Your task to perform on an android device: Open Android settings Image 0: 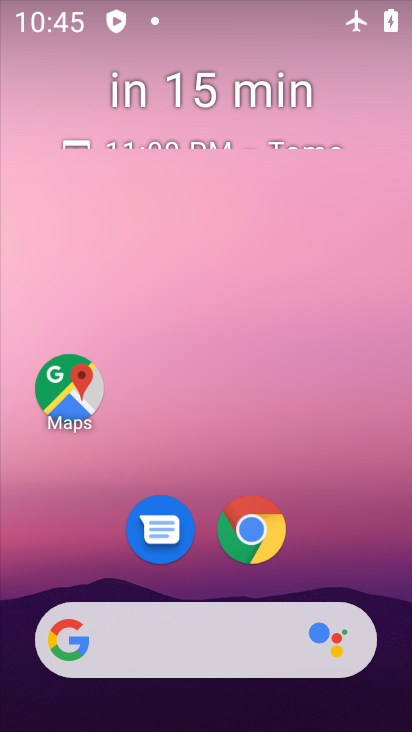
Step 0: click (223, 205)
Your task to perform on an android device: Open Android settings Image 1: 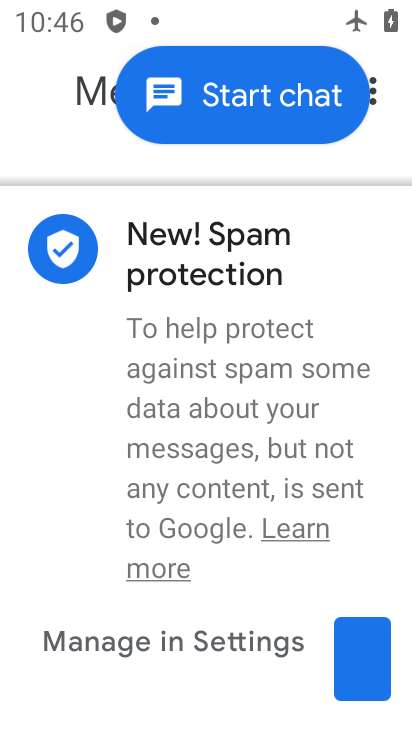
Step 1: press back button
Your task to perform on an android device: Open Android settings Image 2: 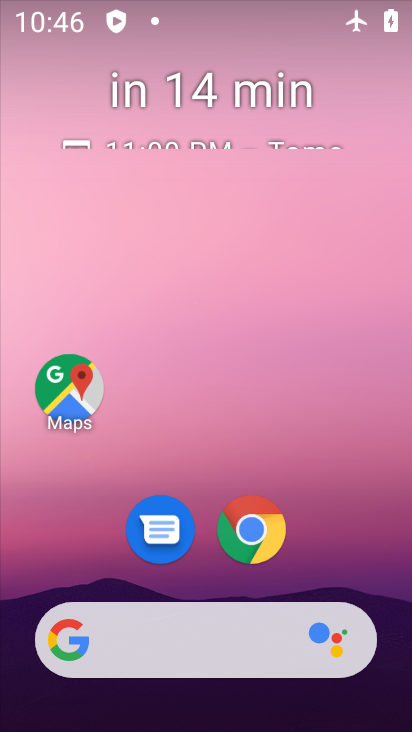
Step 2: drag from (360, 609) to (145, 2)
Your task to perform on an android device: Open Android settings Image 3: 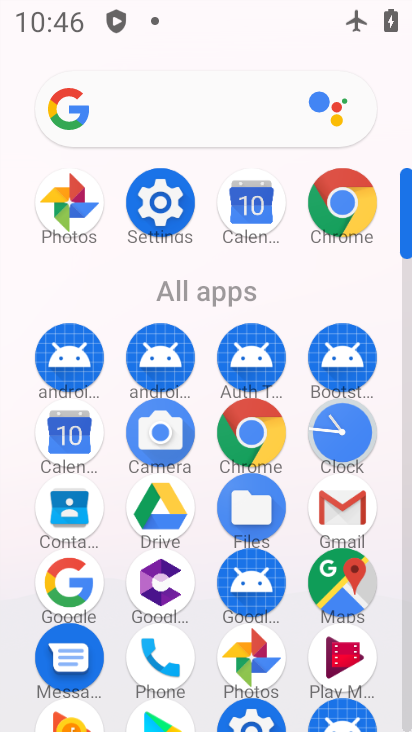
Step 3: click (162, 202)
Your task to perform on an android device: Open Android settings Image 4: 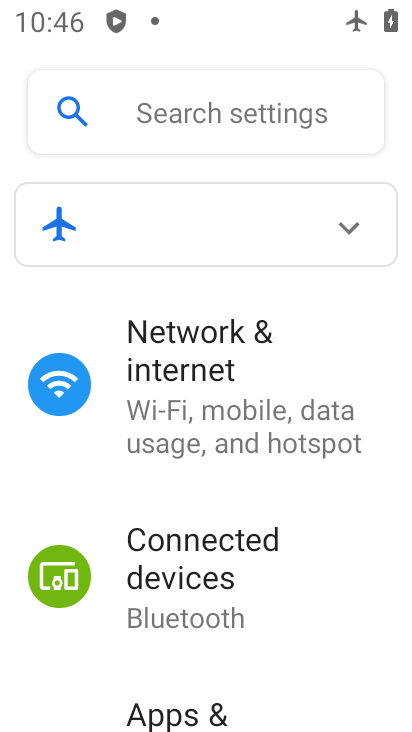
Step 4: drag from (210, 600) to (166, 330)
Your task to perform on an android device: Open Android settings Image 5: 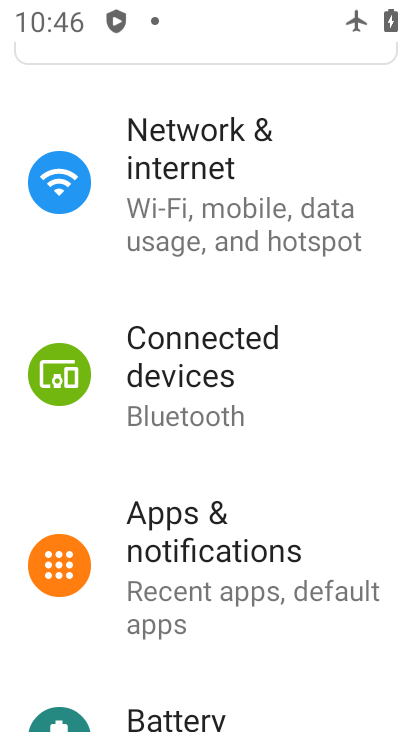
Step 5: drag from (253, 574) to (267, 231)
Your task to perform on an android device: Open Android settings Image 6: 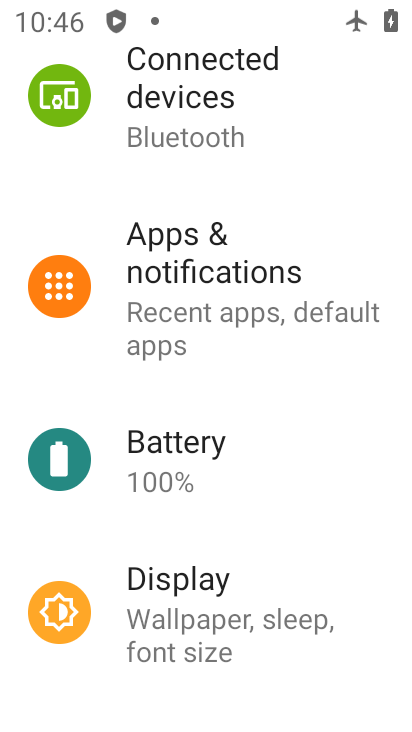
Step 6: drag from (260, 544) to (182, 154)
Your task to perform on an android device: Open Android settings Image 7: 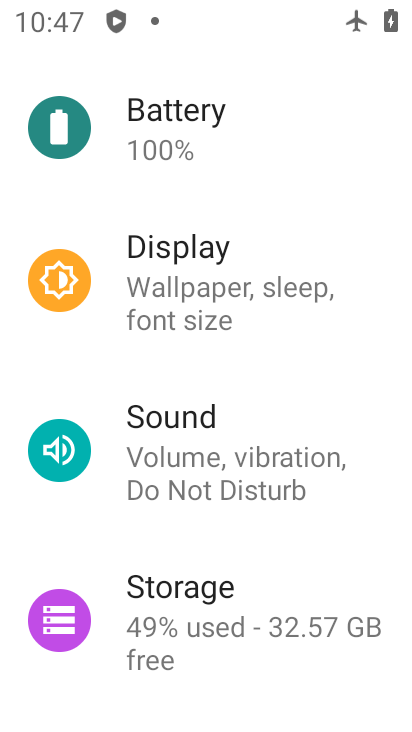
Step 7: drag from (196, 510) to (174, 190)
Your task to perform on an android device: Open Android settings Image 8: 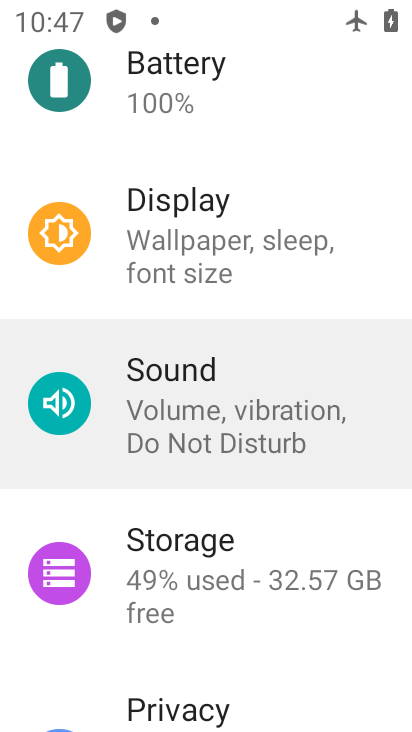
Step 8: drag from (221, 480) to (195, 120)
Your task to perform on an android device: Open Android settings Image 9: 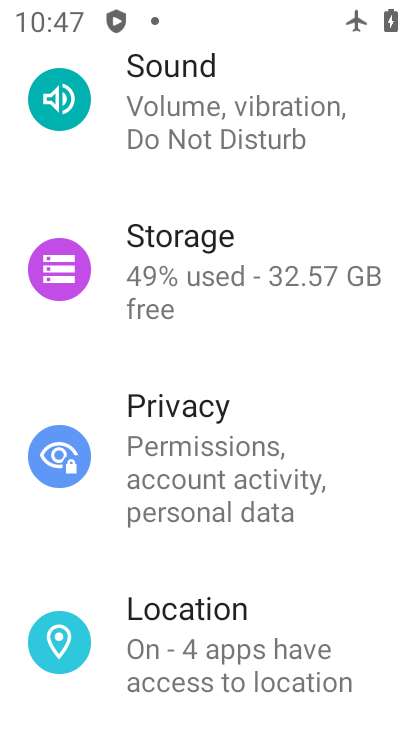
Step 9: drag from (232, 550) to (240, 160)
Your task to perform on an android device: Open Android settings Image 10: 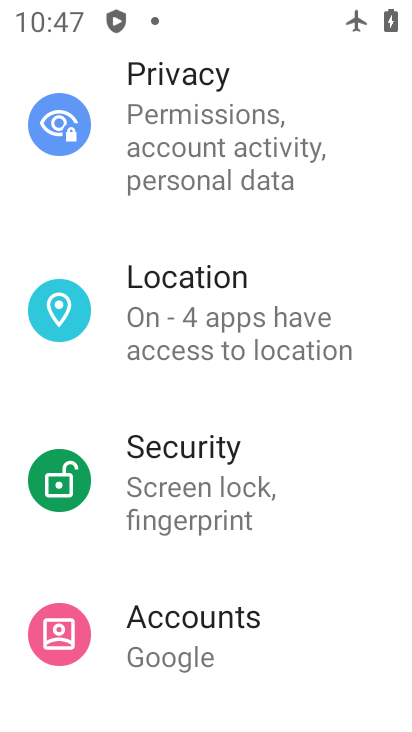
Step 10: drag from (273, 550) to (224, 208)
Your task to perform on an android device: Open Android settings Image 11: 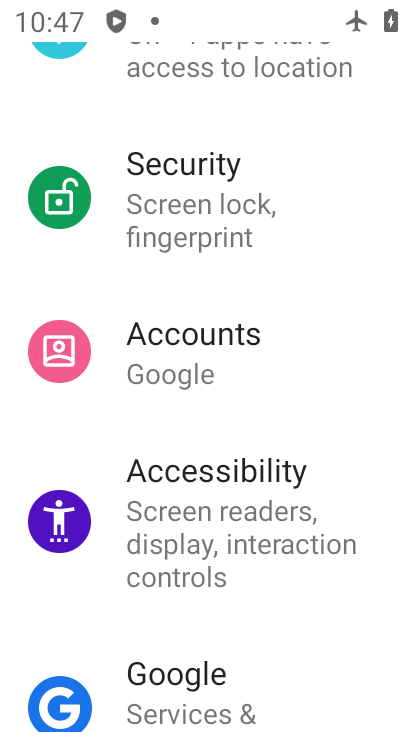
Step 11: drag from (277, 603) to (153, 130)
Your task to perform on an android device: Open Android settings Image 12: 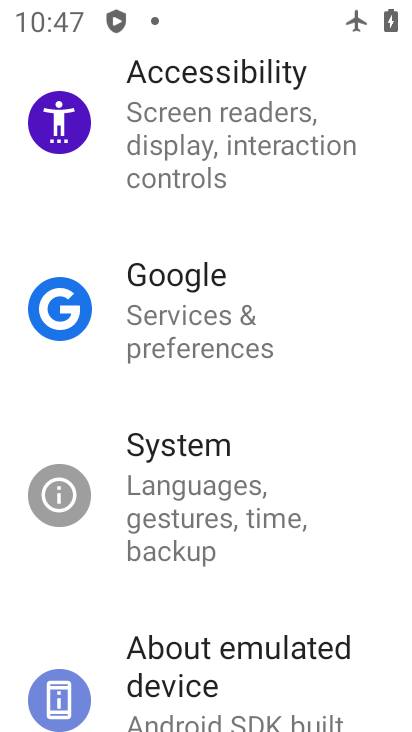
Step 12: drag from (217, 417) to (203, 105)
Your task to perform on an android device: Open Android settings Image 13: 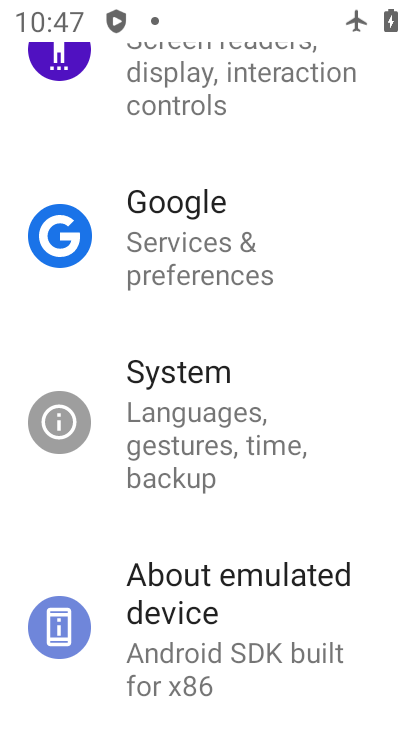
Step 13: drag from (254, 523) to (232, 113)
Your task to perform on an android device: Open Android settings Image 14: 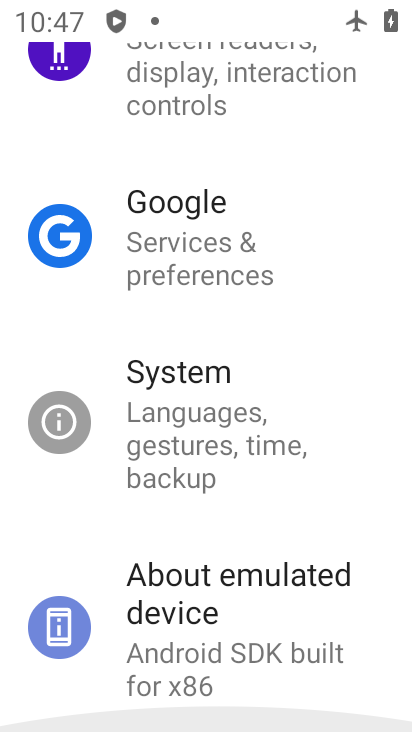
Step 14: drag from (223, 508) to (187, 150)
Your task to perform on an android device: Open Android settings Image 15: 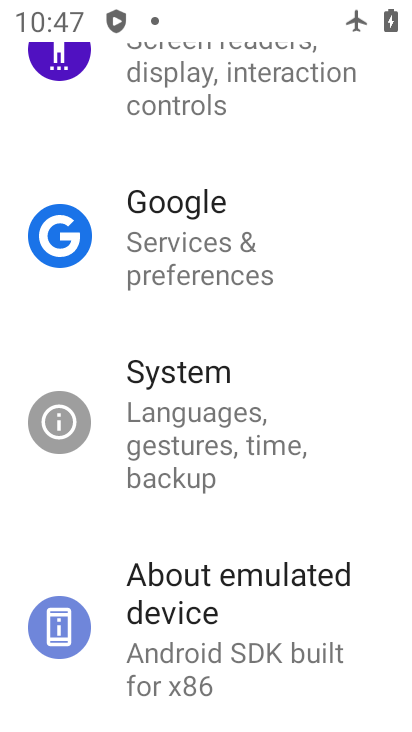
Step 15: click (186, 624)
Your task to perform on an android device: Open Android settings Image 16: 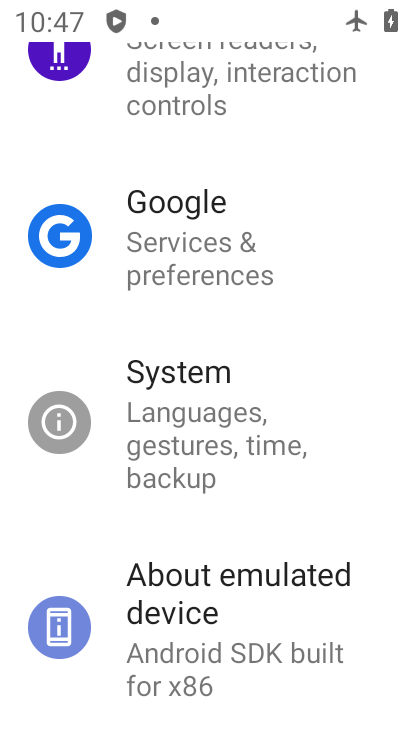
Step 16: click (186, 624)
Your task to perform on an android device: Open Android settings Image 17: 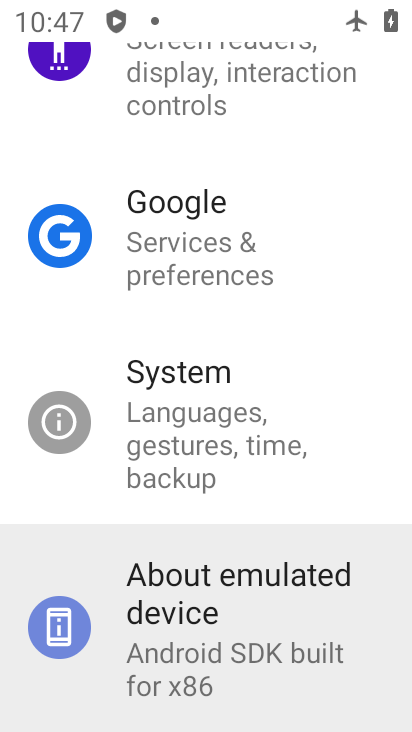
Step 17: click (185, 625)
Your task to perform on an android device: Open Android settings Image 18: 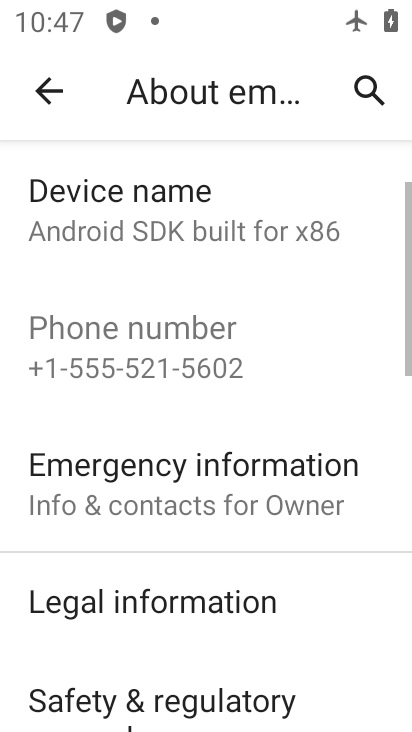
Step 18: task complete